Your task to perform on an android device: turn on javascript in the chrome app Image 0: 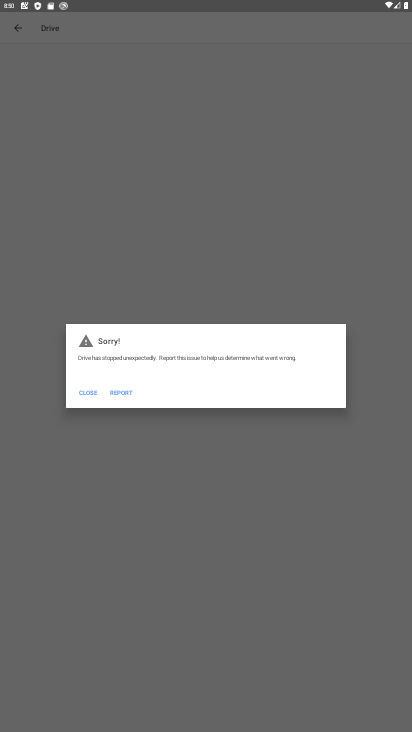
Step 0: press home button
Your task to perform on an android device: turn on javascript in the chrome app Image 1: 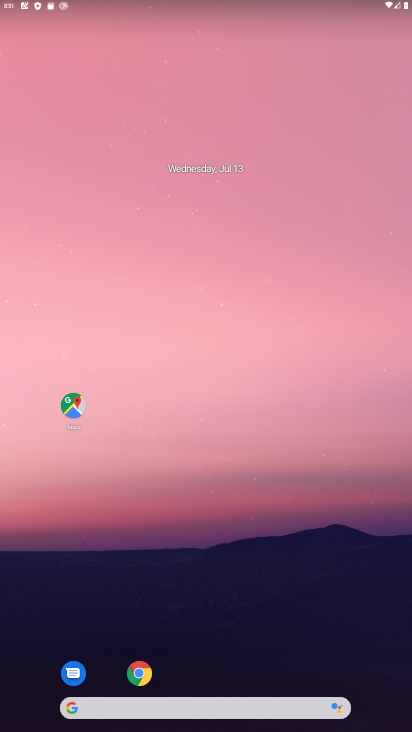
Step 1: click (140, 670)
Your task to perform on an android device: turn on javascript in the chrome app Image 2: 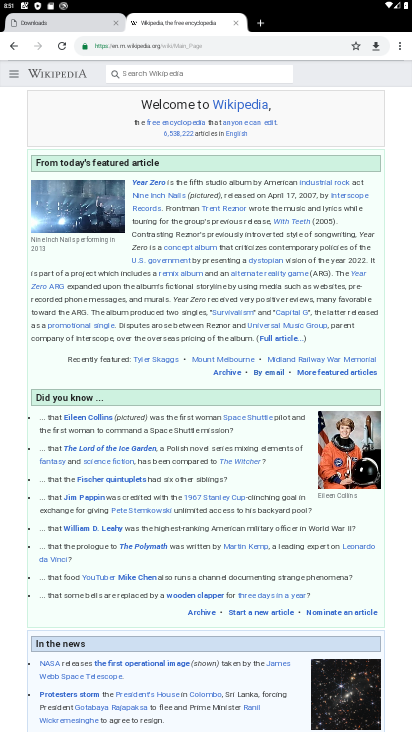
Step 2: click (394, 50)
Your task to perform on an android device: turn on javascript in the chrome app Image 3: 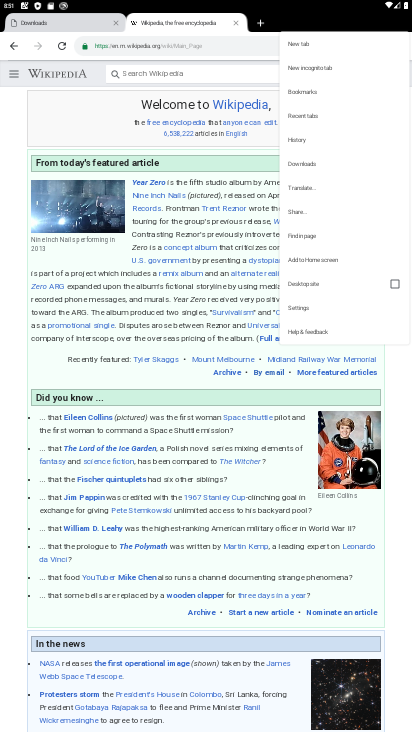
Step 3: click (302, 307)
Your task to perform on an android device: turn on javascript in the chrome app Image 4: 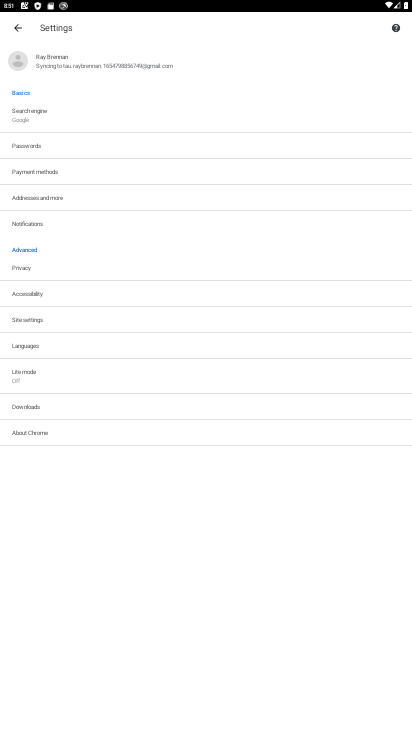
Step 4: click (74, 316)
Your task to perform on an android device: turn on javascript in the chrome app Image 5: 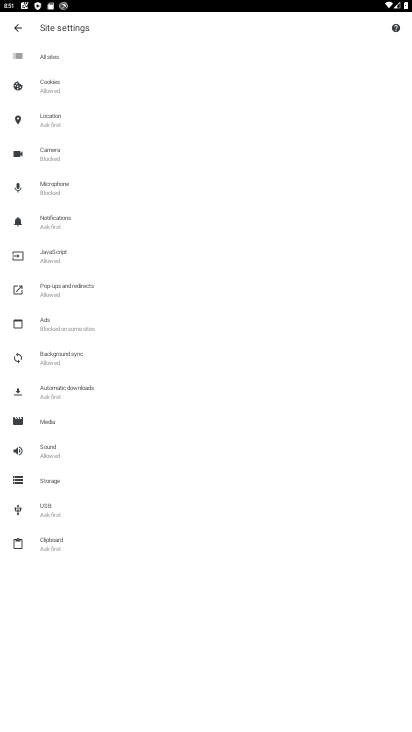
Step 5: click (57, 262)
Your task to perform on an android device: turn on javascript in the chrome app Image 6: 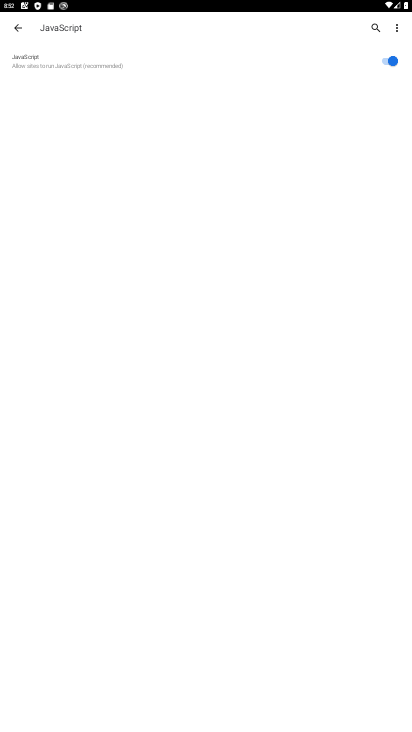
Step 6: task complete